Your task to perform on an android device: Empty the shopping cart on walmart. Image 0: 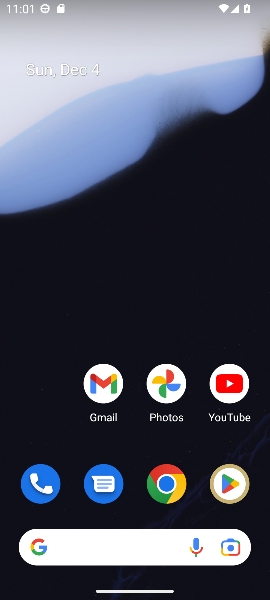
Step 0: click (167, 492)
Your task to perform on an android device: Empty the shopping cart on walmart. Image 1: 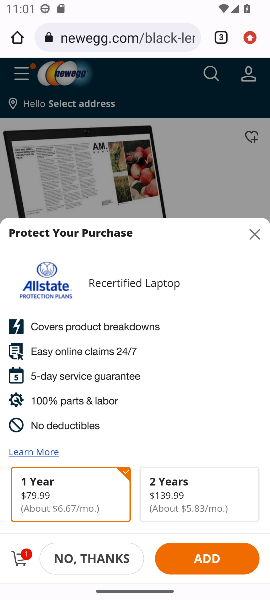
Step 1: click (109, 45)
Your task to perform on an android device: Empty the shopping cart on walmart. Image 2: 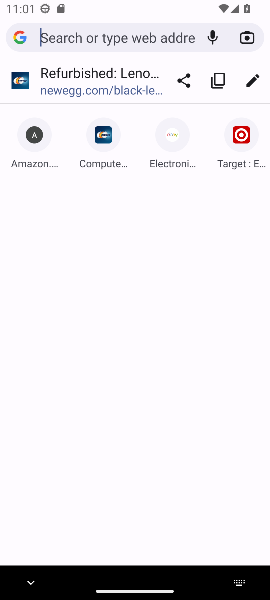
Step 2: type "walmart.com"
Your task to perform on an android device: Empty the shopping cart on walmart. Image 3: 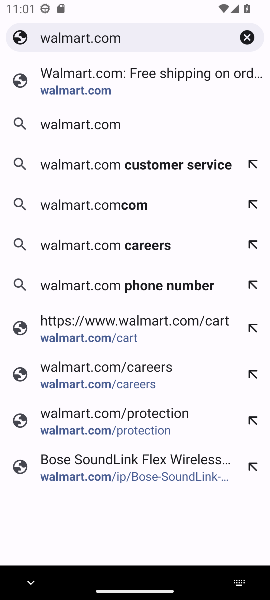
Step 3: click (67, 91)
Your task to perform on an android device: Empty the shopping cart on walmart. Image 4: 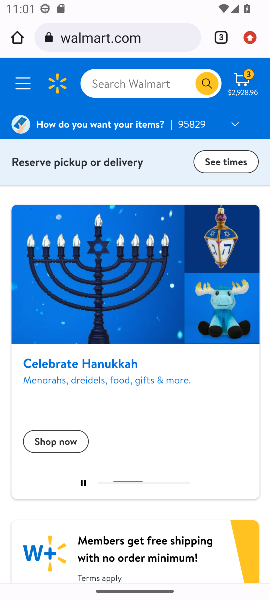
Step 4: click (245, 86)
Your task to perform on an android device: Empty the shopping cart on walmart. Image 5: 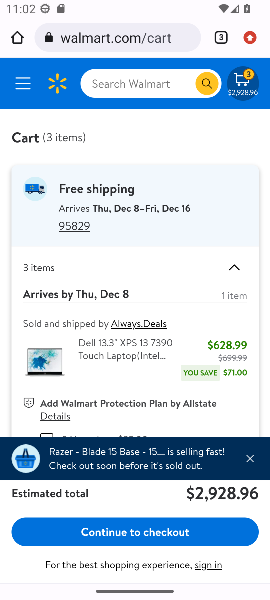
Step 5: drag from (103, 387) to (104, 225)
Your task to perform on an android device: Empty the shopping cart on walmart. Image 6: 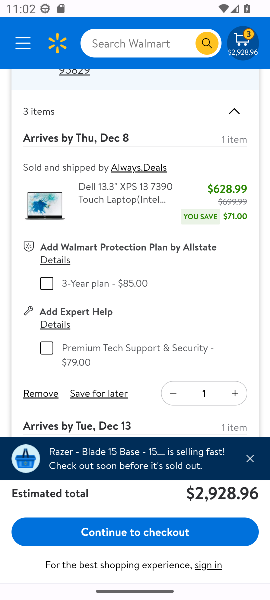
Step 6: click (36, 392)
Your task to perform on an android device: Empty the shopping cart on walmart. Image 7: 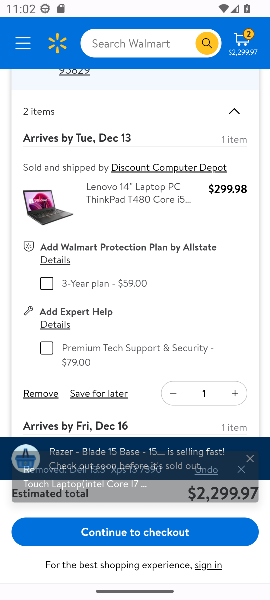
Step 7: click (43, 393)
Your task to perform on an android device: Empty the shopping cart on walmart. Image 8: 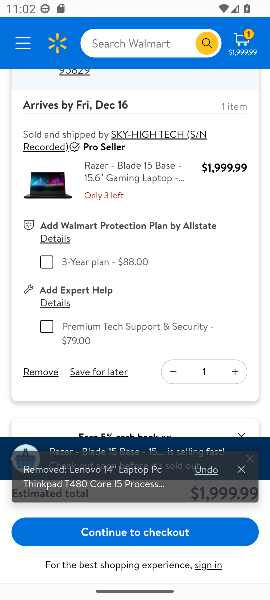
Step 8: click (37, 370)
Your task to perform on an android device: Empty the shopping cart on walmart. Image 9: 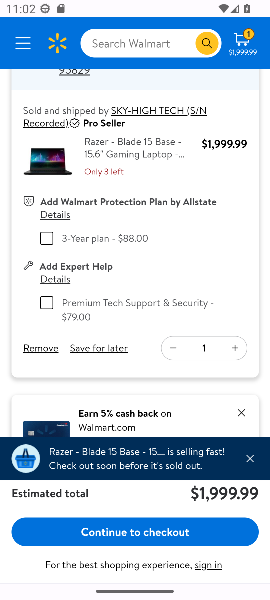
Step 9: click (39, 348)
Your task to perform on an android device: Empty the shopping cart on walmart. Image 10: 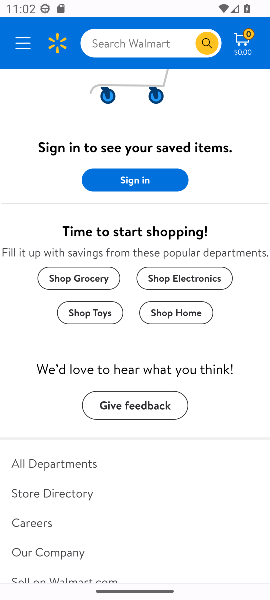
Step 10: task complete